Your task to perform on an android device: turn off airplane mode Image 0: 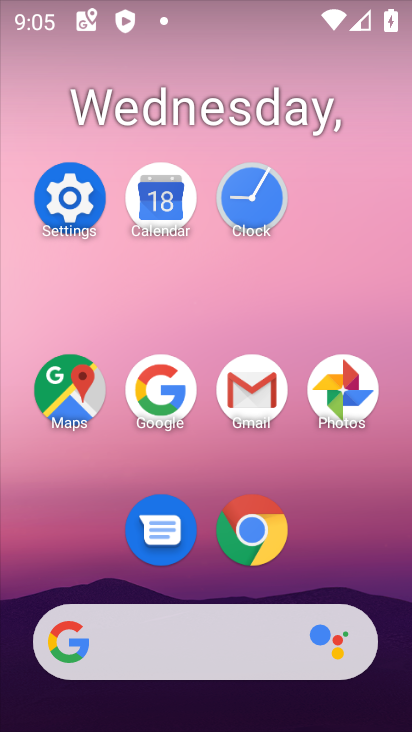
Step 0: click (89, 191)
Your task to perform on an android device: turn off airplane mode Image 1: 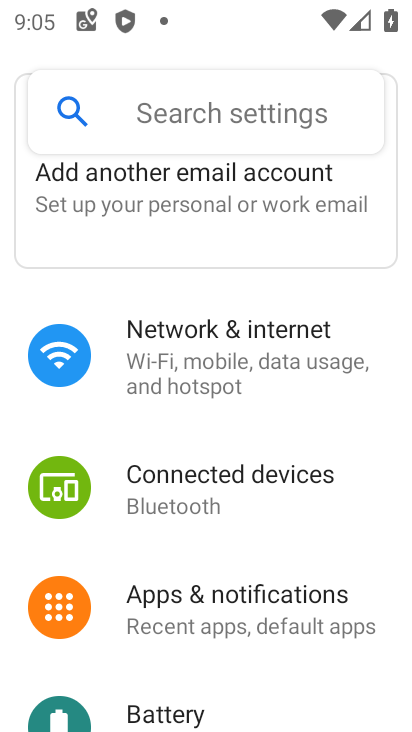
Step 1: click (294, 334)
Your task to perform on an android device: turn off airplane mode Image 2: 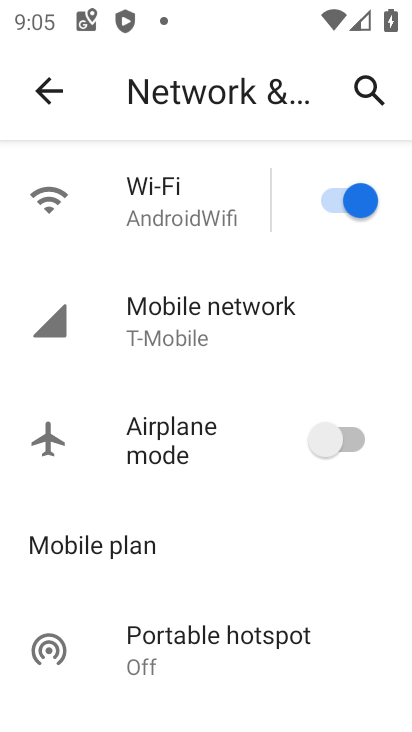
Step 2: task complete